Your task to perform on an android device: Open the map Image 0: 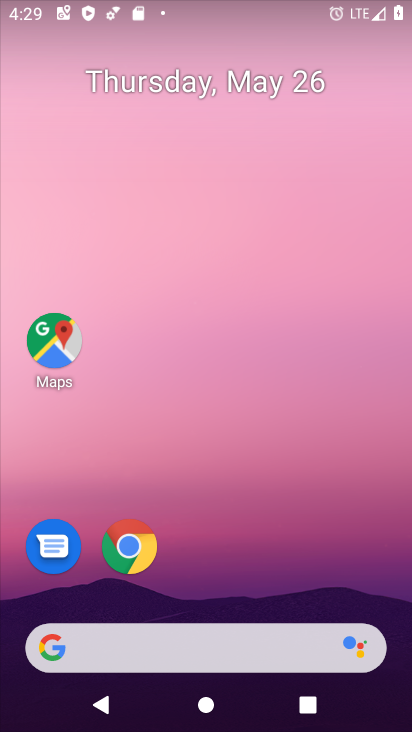
Step 0: click (56, 338)
Your task to perform on an android device: Open the map Image 1: 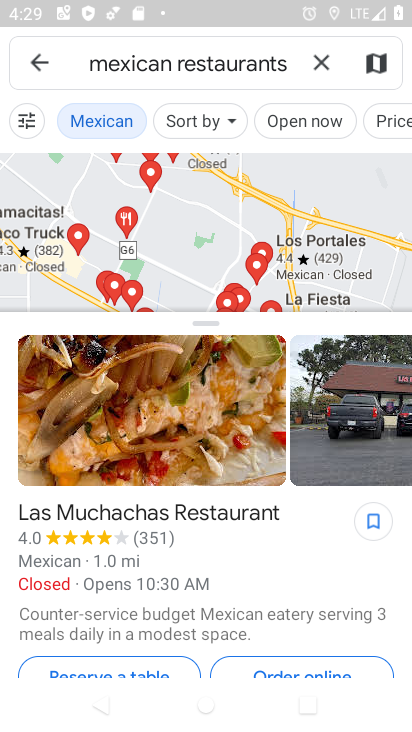
Step 1: task complete